Your task to perform on an android device: What's the weather today? Image 0: 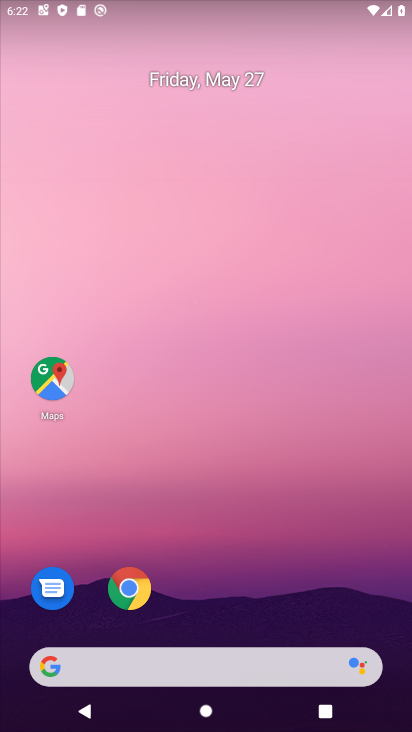
Step 0: click (133, 578)
Your task to perform on an android device: What's the weather today? Image 1: 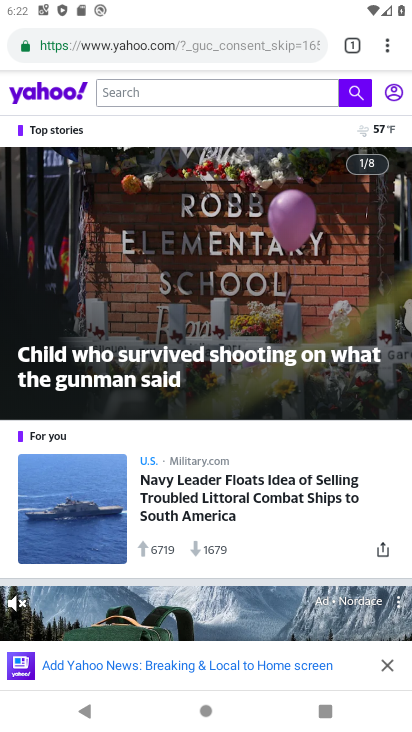
Step 1: click (169, 38)
Your task to perform on an android device: What's the weather today? Image 2: 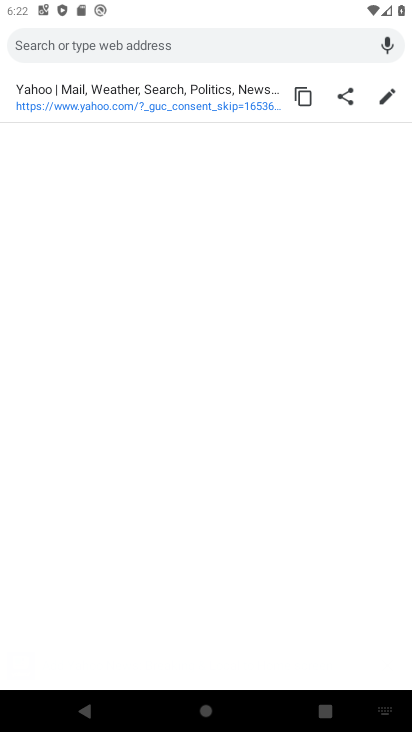
Step 2: type "What's the weather today?"
Your task to perform on an android device: What's the weather today? Image 3: 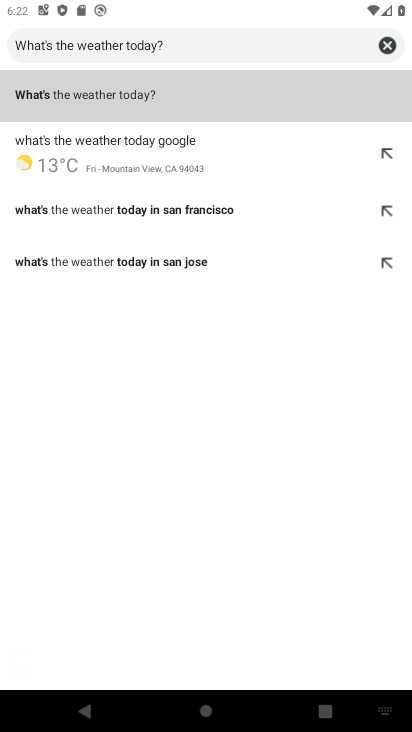
Step 3: click (82, 99)
Your task to perform on an android device: What's the weather today? Image 4: 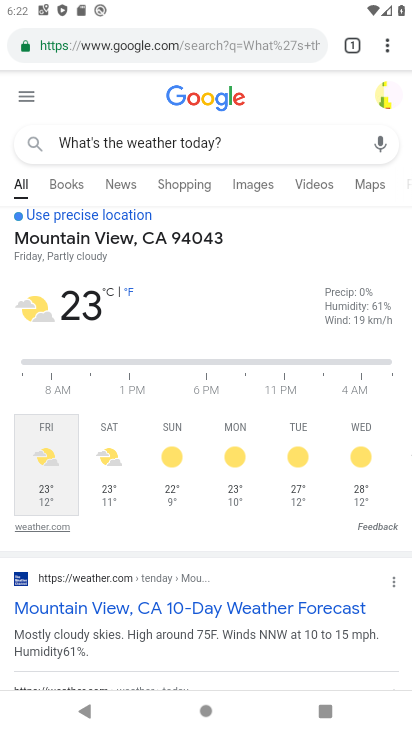
Step 4: task complete